Your task to perform on an android device: Open Google Chrome and click the shortcut for Amazon.com Image 0: 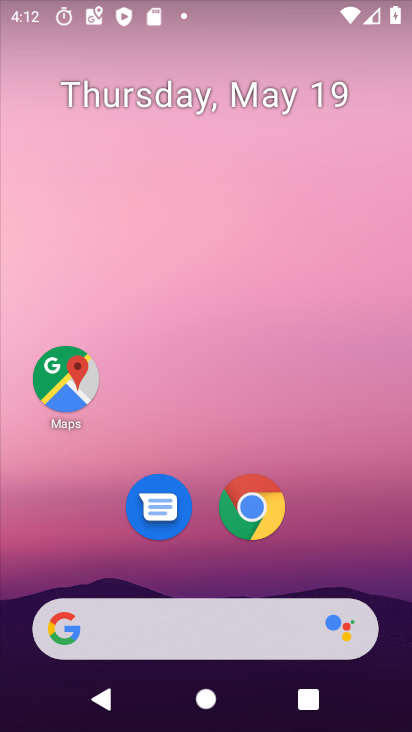
Step 0: click (262, 511)
Your task to perform on an android device: Open Google Chrome and click the shortcut for Amazon.com Image 1: 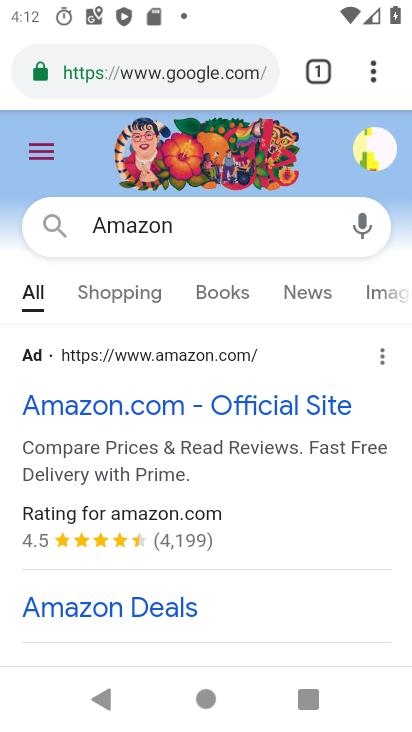
Step 1: click (373, 72)
Your task to perform on an android device: Open Google Chrome and click the shortcut for Amazon.com Image 2: 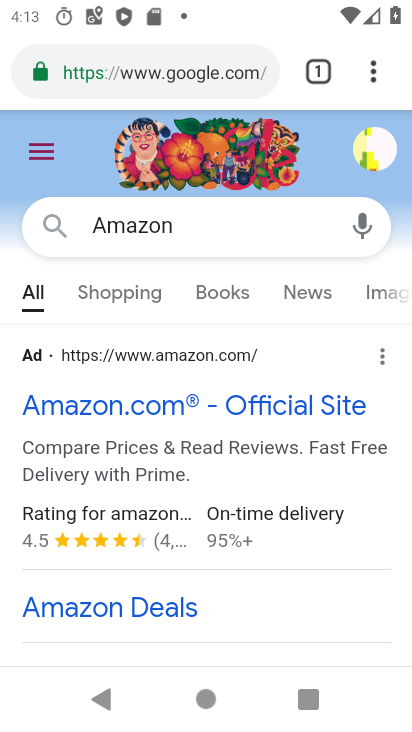
Step 2: click (377, 74)
Your task to perform on an android device: Open Google Chrome and click the shortcut for Amazon.com Image 3: 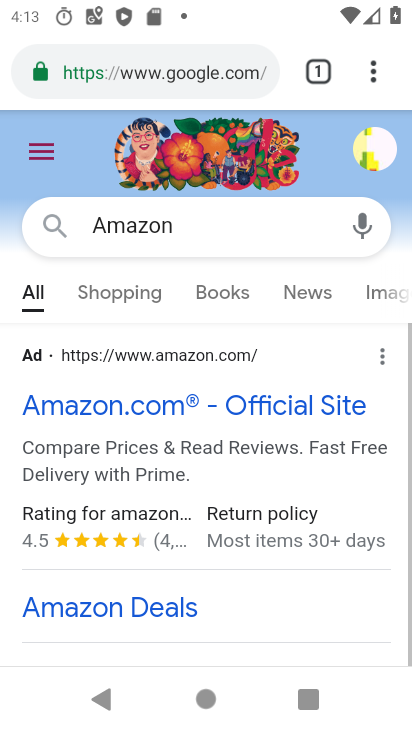
Step 3: click (370, 67)
Your task to perform on an android device: Open Google Chrome and click the shortcut for Amazon.com Image 4: 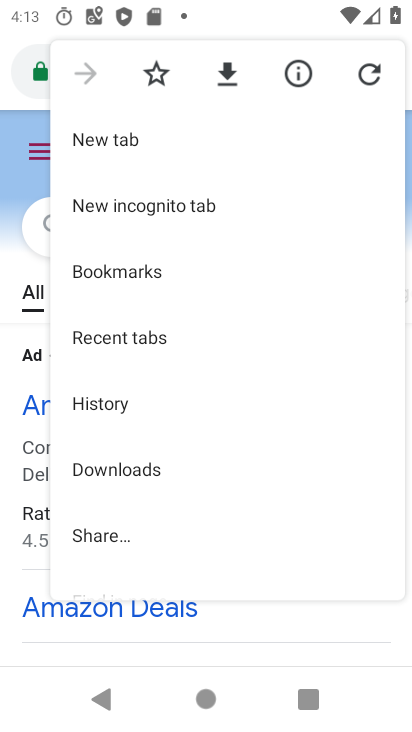
Step 4: click (119, 139)
Your task to perform on an android device: Open Google Chrome and click the shortcut for Amazon.com Image 5: 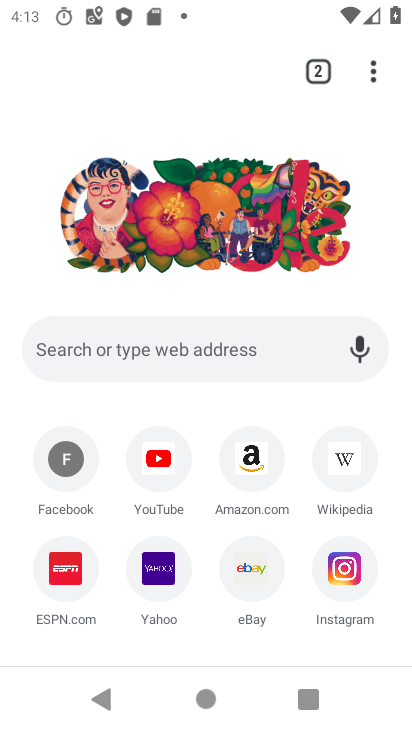
Step 5: click (253, 462)
Your task to perform on an android device: Open Google Chrome and click the shortcut for Amazon.com Image 6: 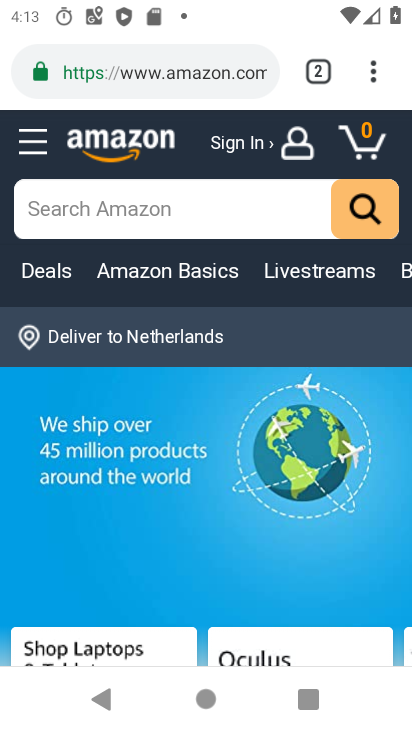
Step 6: task complete